Your task to perform on an android device: Go to Android settings Image 0: 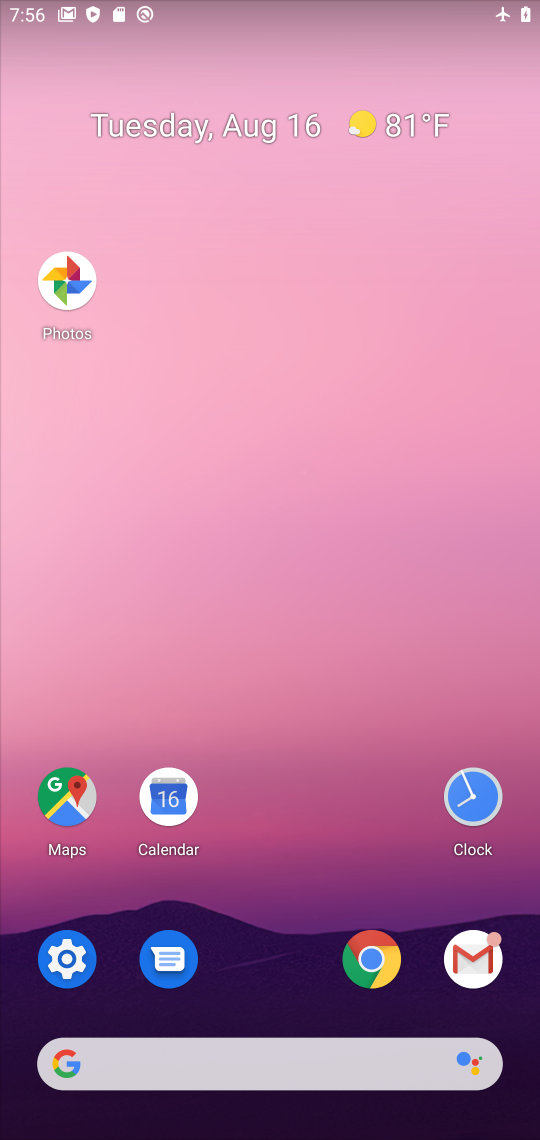
Step 0: click (69, 959)
Your task to perform on an android device: Go to Android settings Image 1: 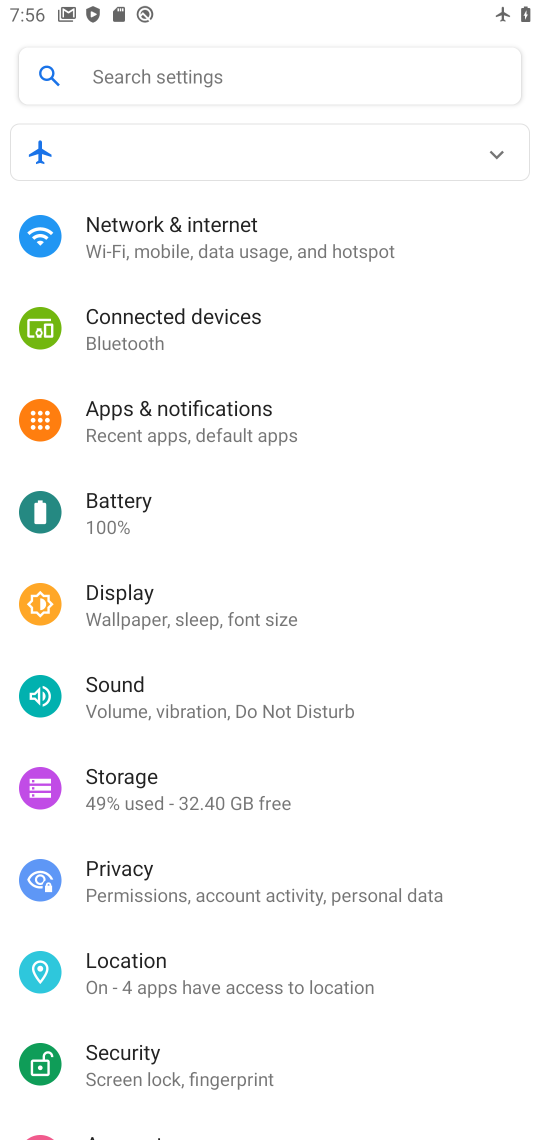
Step 1: task complete